Your task to perform on an android device: Show me popular videos on Youtube Image 0: 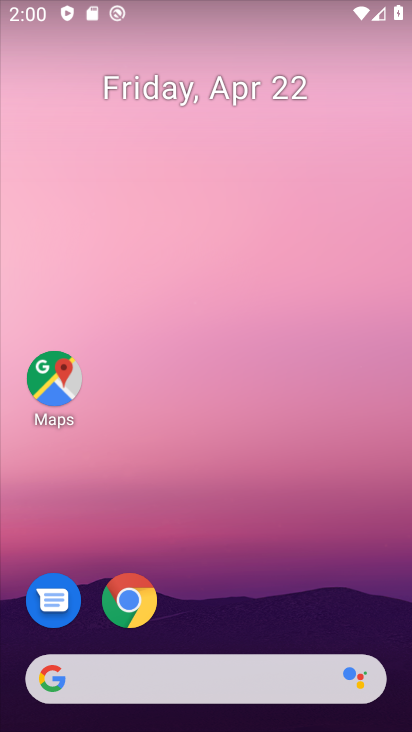
Step 0: drag from (193, 663) to (322, 51)
Your task to perform on an android device: Show me popular videos on Youtube Image 1: 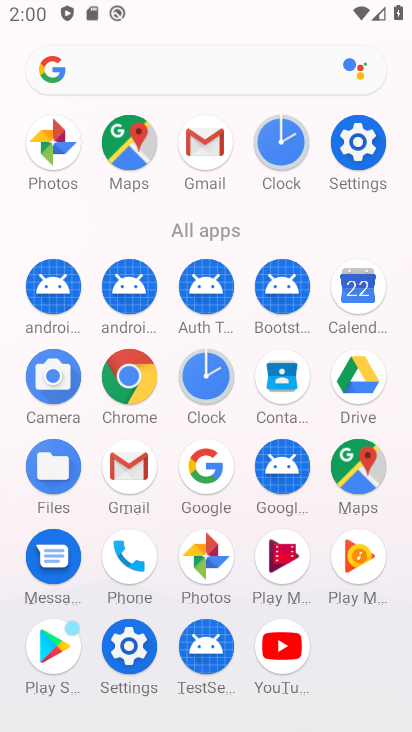
Step 1: click (287, 670)
Your task to perform on an android device: Show me popular videos on Youtube Image 2: 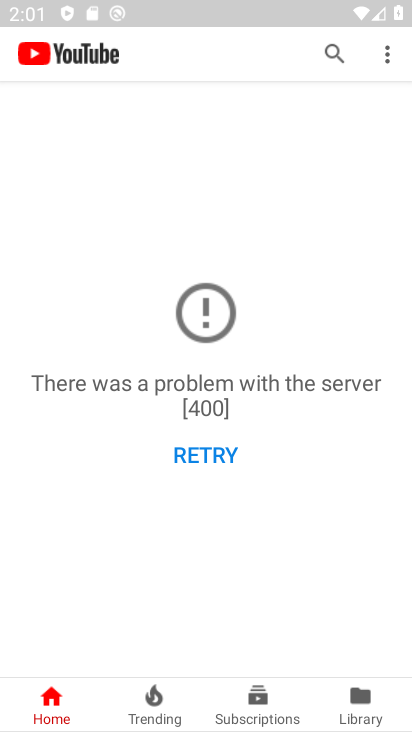
Step 2: click (146, 711)
Your task to perform on an android device: Show me popular videos on Youtube Image 3: 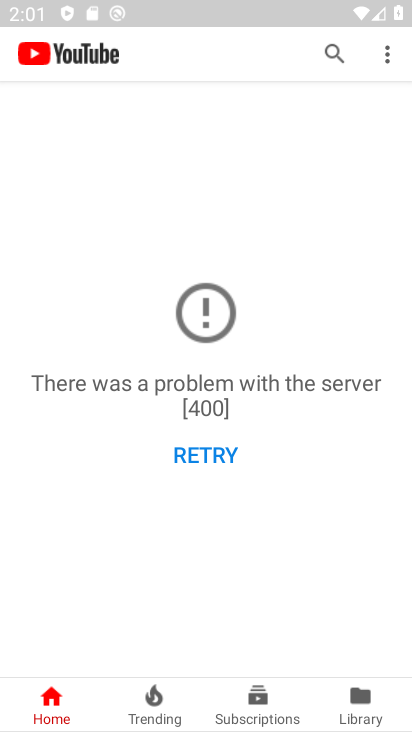
Step 3: click (161, 720)
Your task to perform on an android device: Show me popular videos on Youtube Image 4: 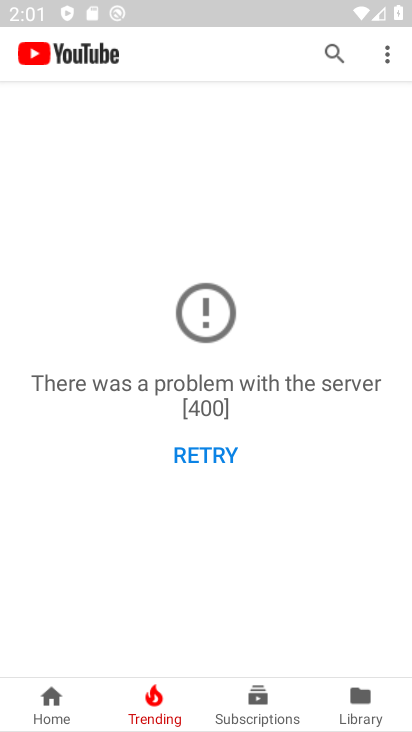
Step 4: task complete